Your task to perform on an android device: What is the recent news? Image 0: 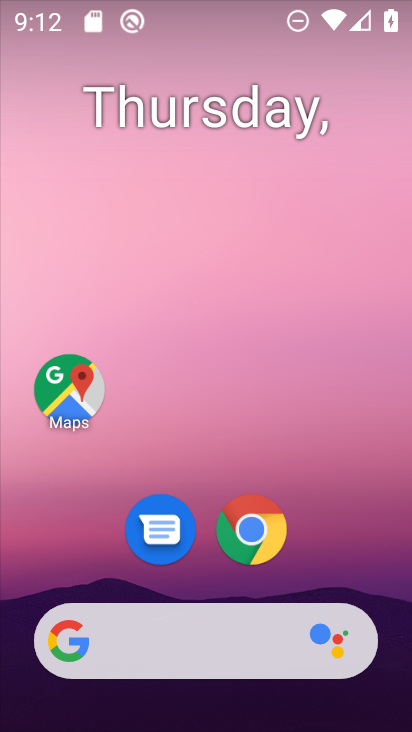
Step 0: drag from (2, 270) to (347, 267)
Your task to perform on an android device: What is the recent news? Image 1: 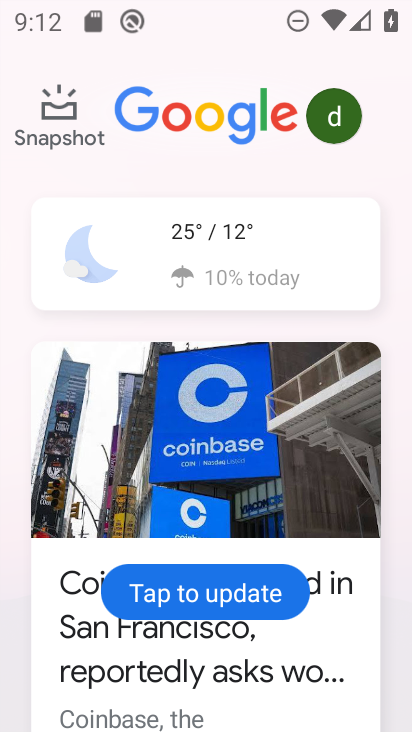
Step 1: task complete